Your task to perform on an android device: remove spam from my inbox in the gmail app Image 0: 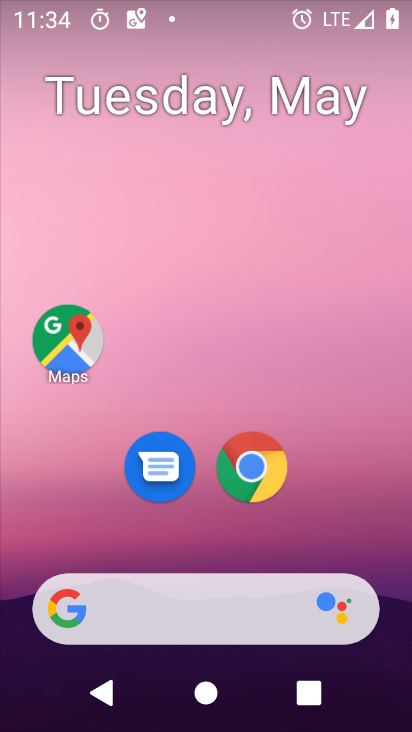
Step 0: drag from (346, 507) to (234, 14)
Your task to perform on an android device: remove spam from my inbox in the gmail app Image 1: 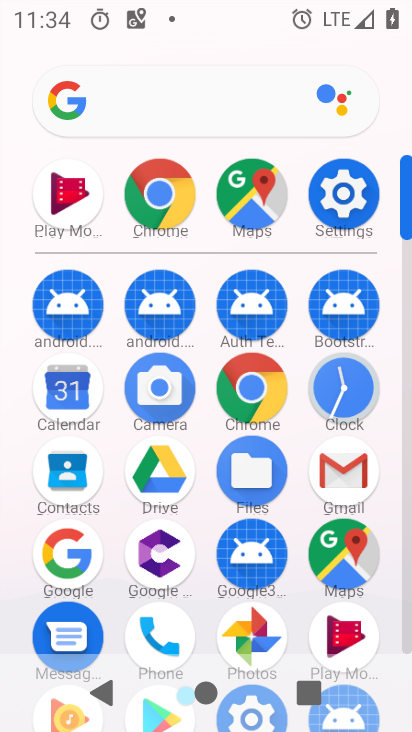
Step 1: drag from (20, 542) to (19, 213)
Your task to perform on an android device: remove spam from my inbox in the gmail app Image 2: 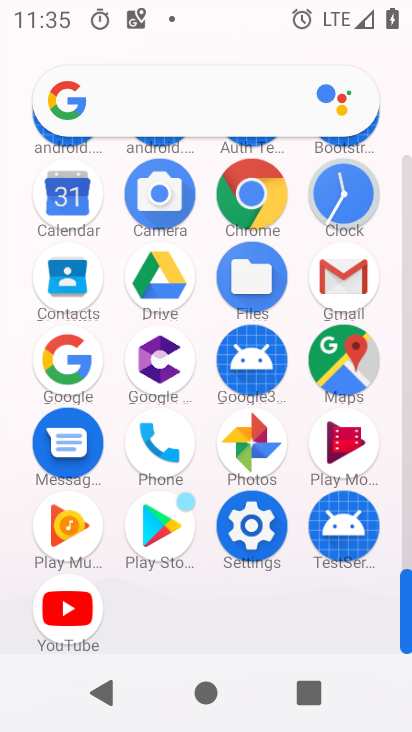
Step 2: click (342, 272)
Your task to perform on an android device: remove spam from my inbox in the gmail app Image 3: 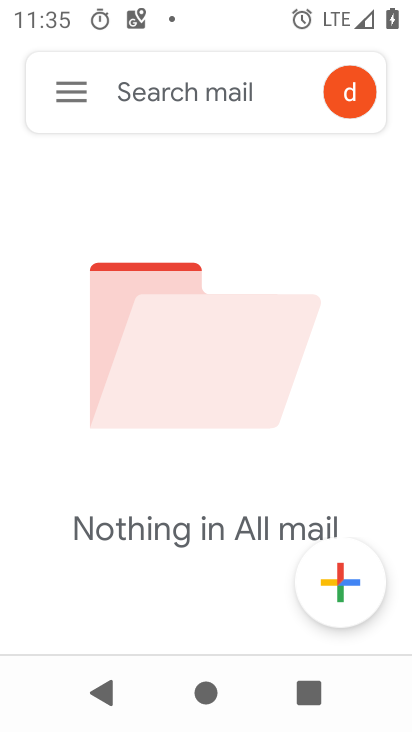
Step 3: click (67, 96)
Your task to perform on an android device: remove spam from my inbox in the gmail app Image 4: 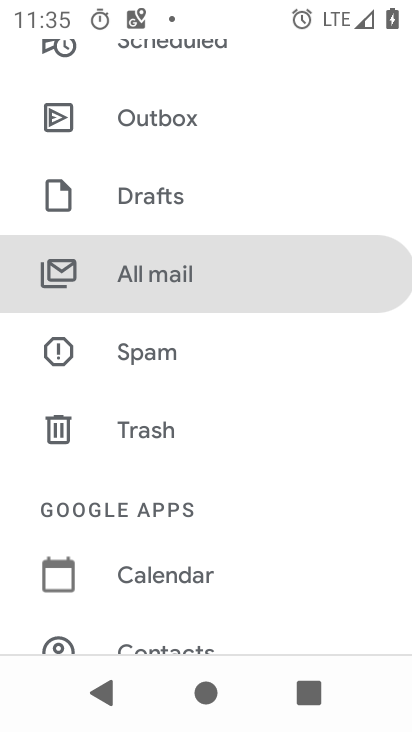
Step 4: click (148, 344)
Your task to perform on an android device: remove spam from my inbox in the gmail app Image 5: 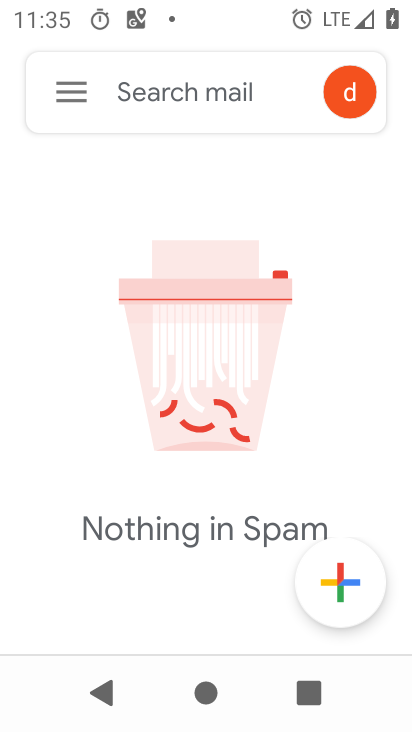
Step 5: task complete